Your task to perform on an android device: change timer sound Image 0: 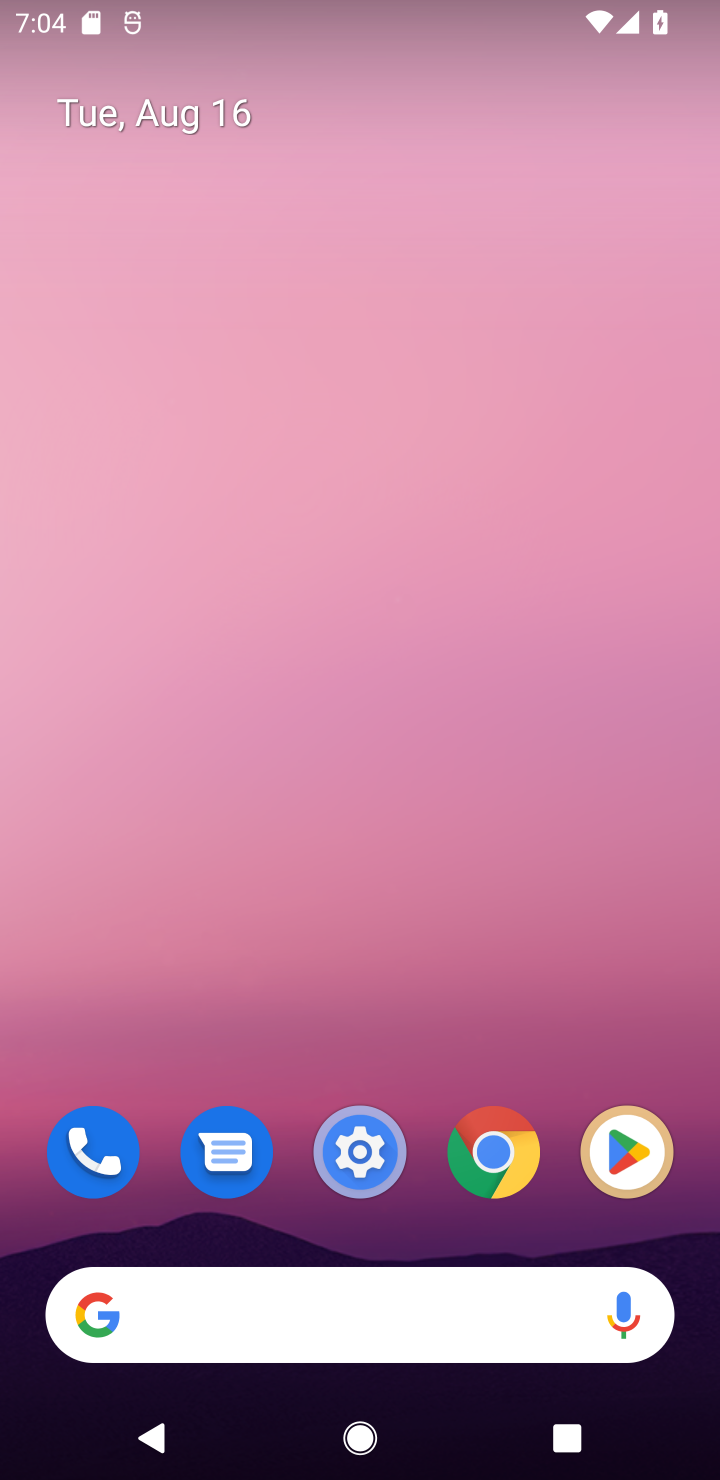
Step 0: drag from (315, 637) to (698, 1383)
Your task to perform on an android device: change timer sound Image 1: 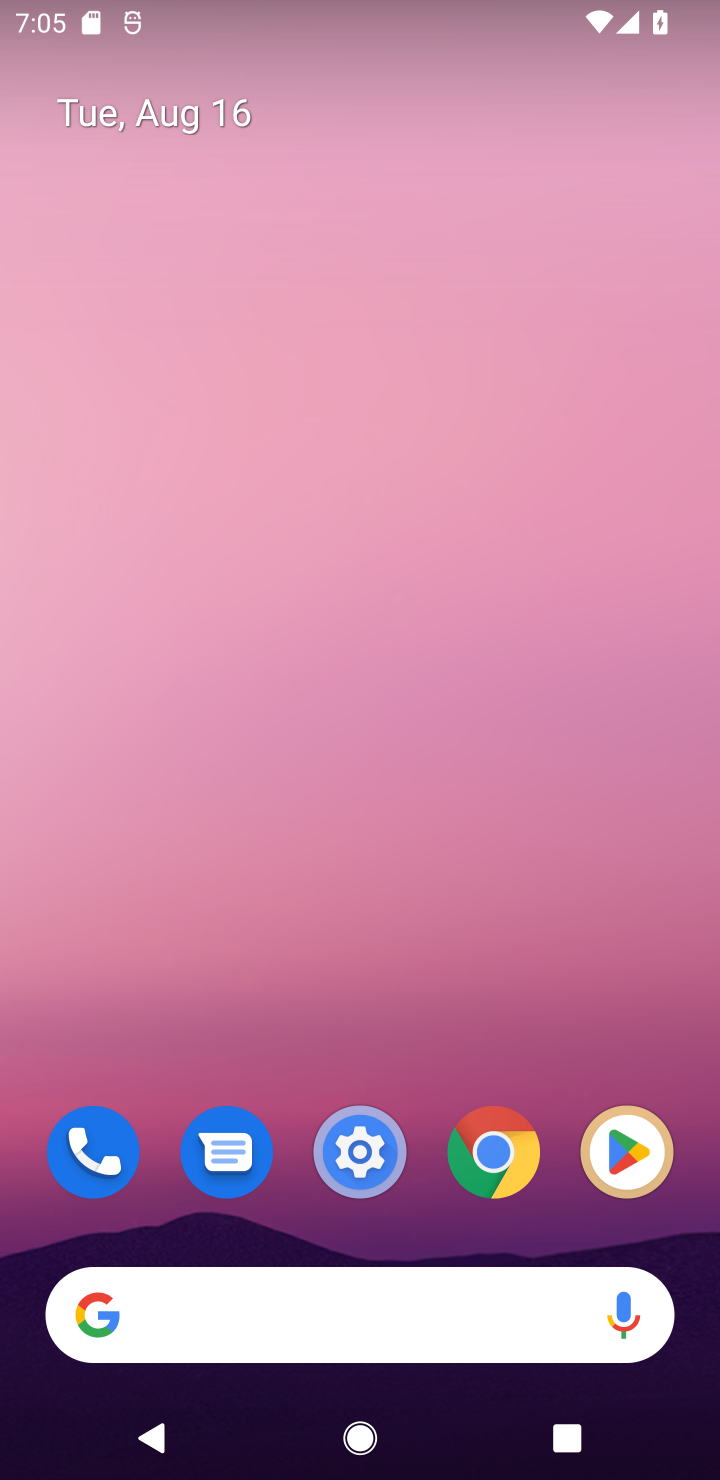
Step 1: drag from (303, 1093) to (377, 106)
Your task to perform on an android device: change timer sound Image 2: 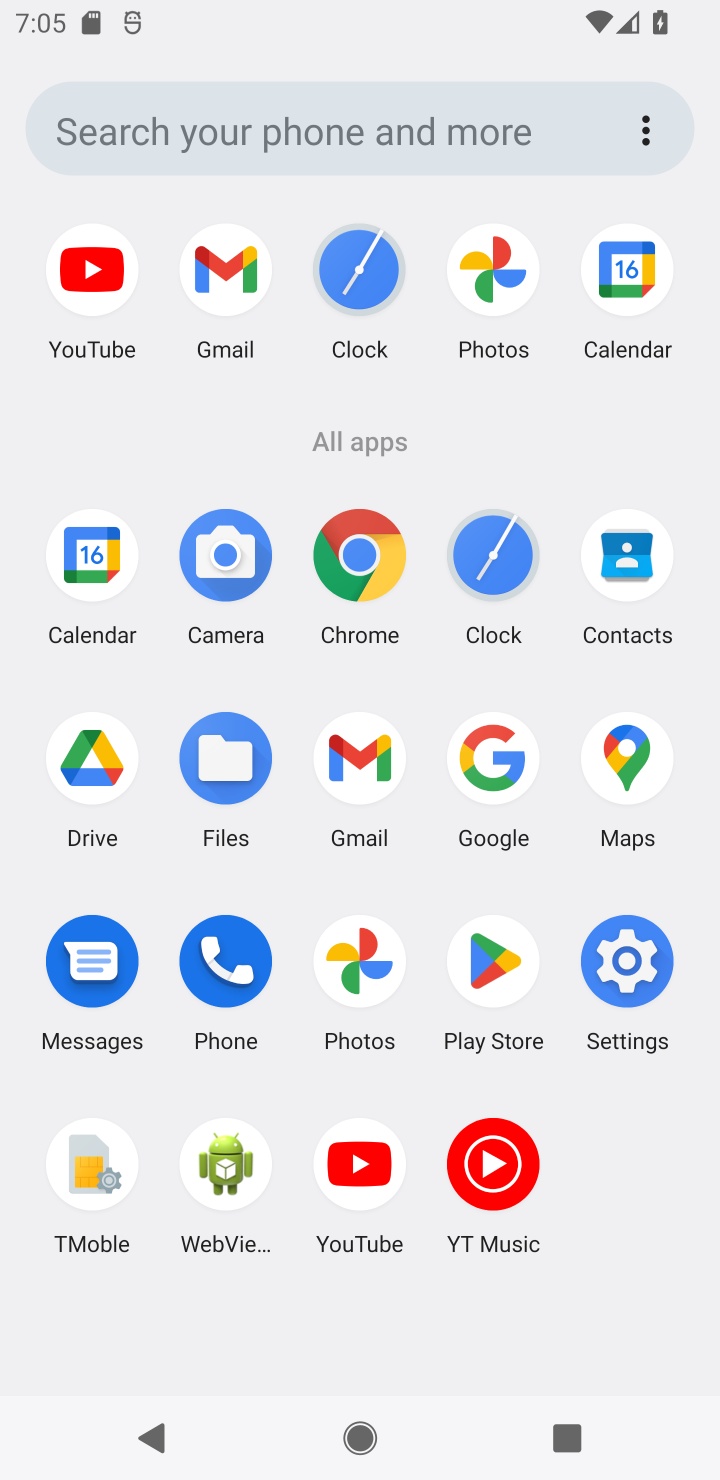
Step 2: click (503, 571)
Your task to perform on an android device: change timer sound Image 3: 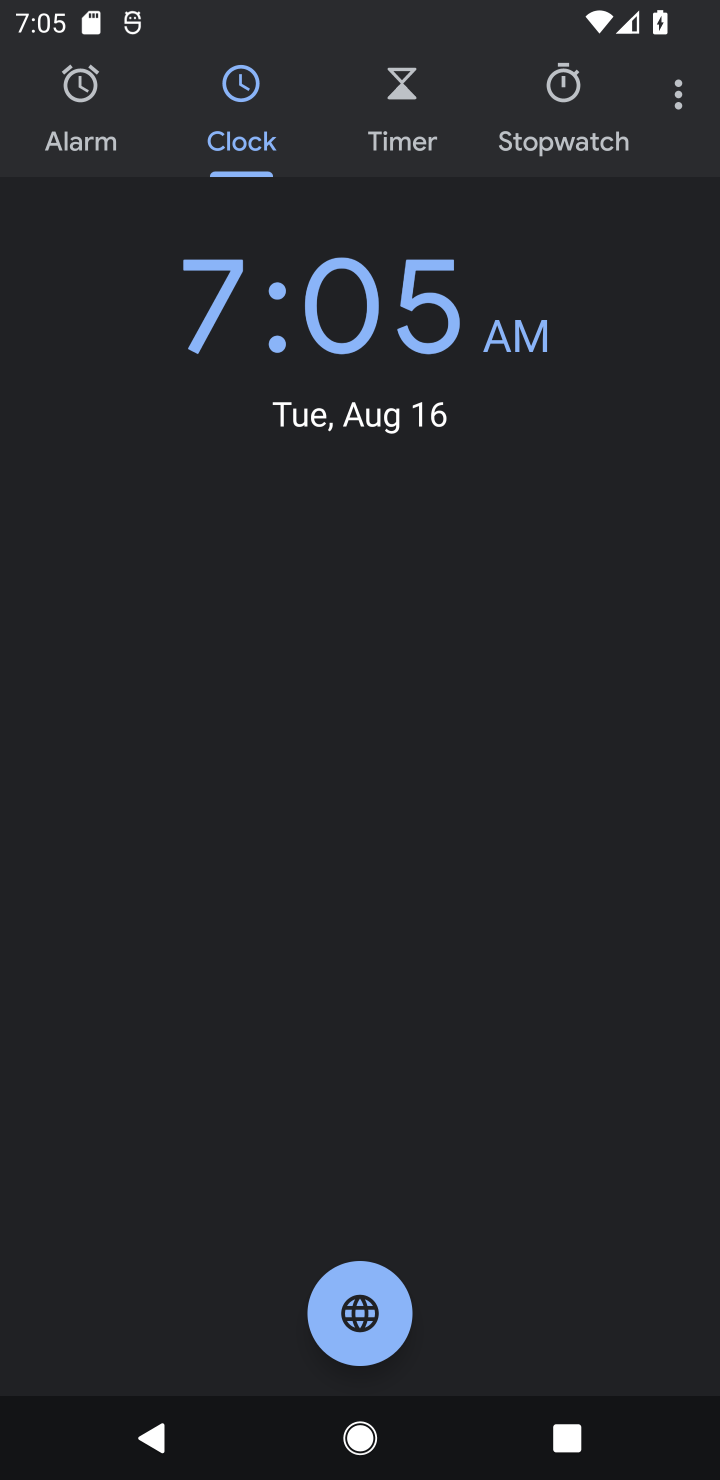
Step 3: click (691, 102)
Your task to perform on an android device: change timer sound Image 4: 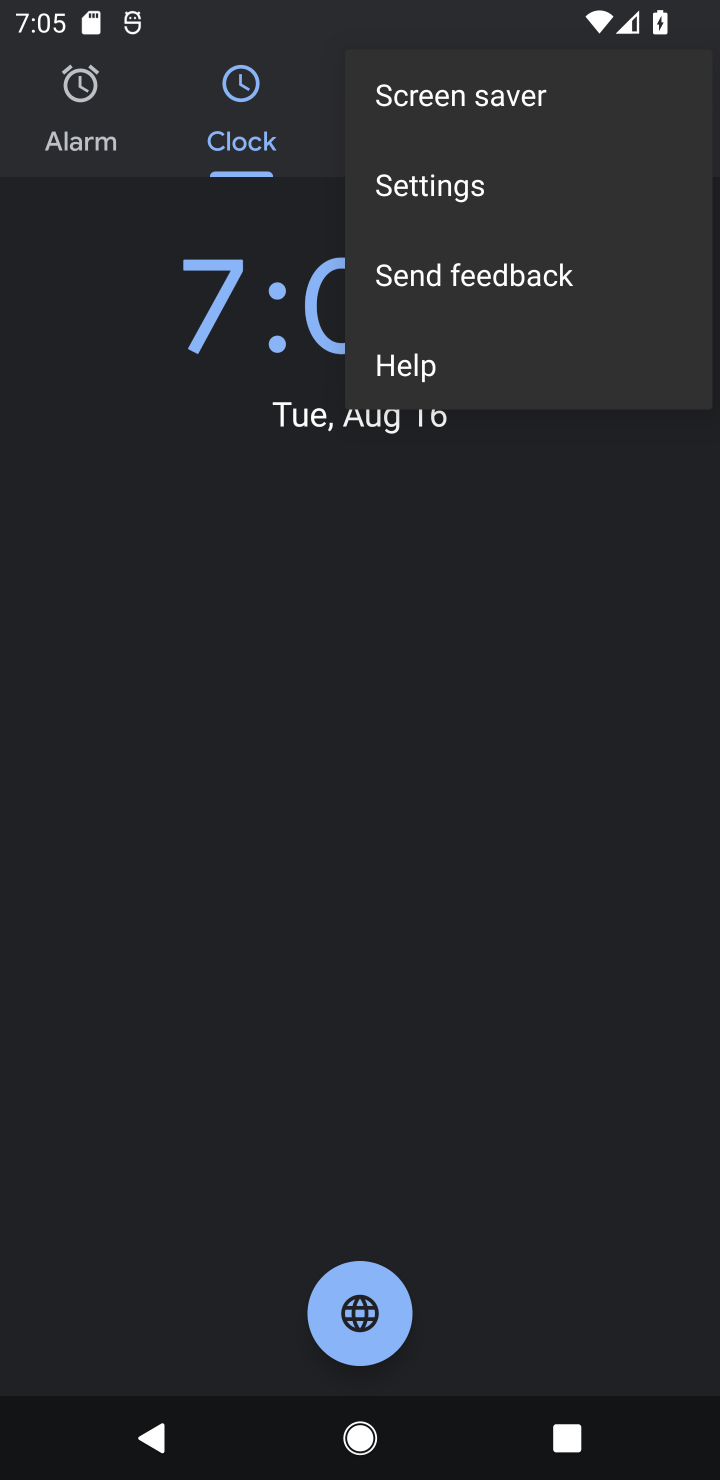
Step 4: click (444, 188)
Your task to perform on an android device: change timer sound Image 5: 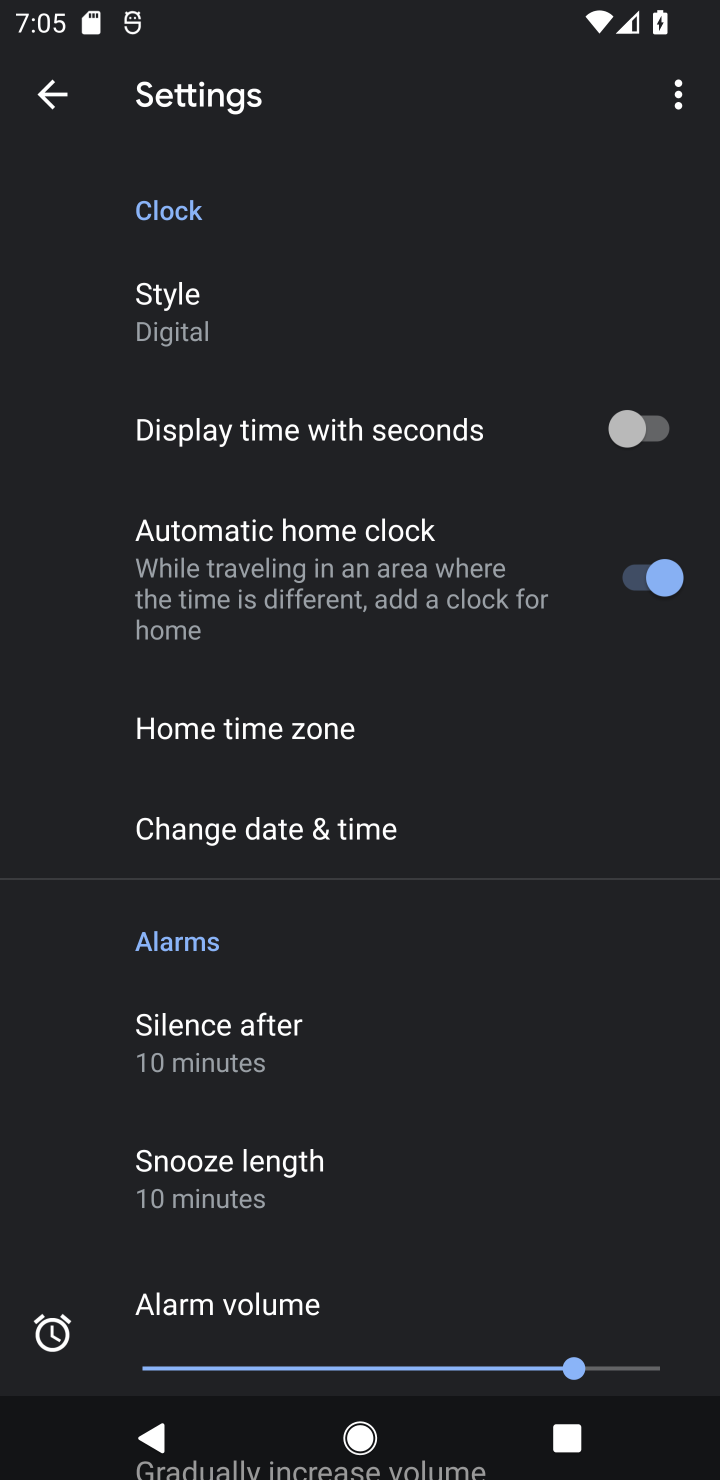
Step 5: drag from (272, 1201) to (332, 463)
Your task to perform on an android device: change timer sound Image 6: 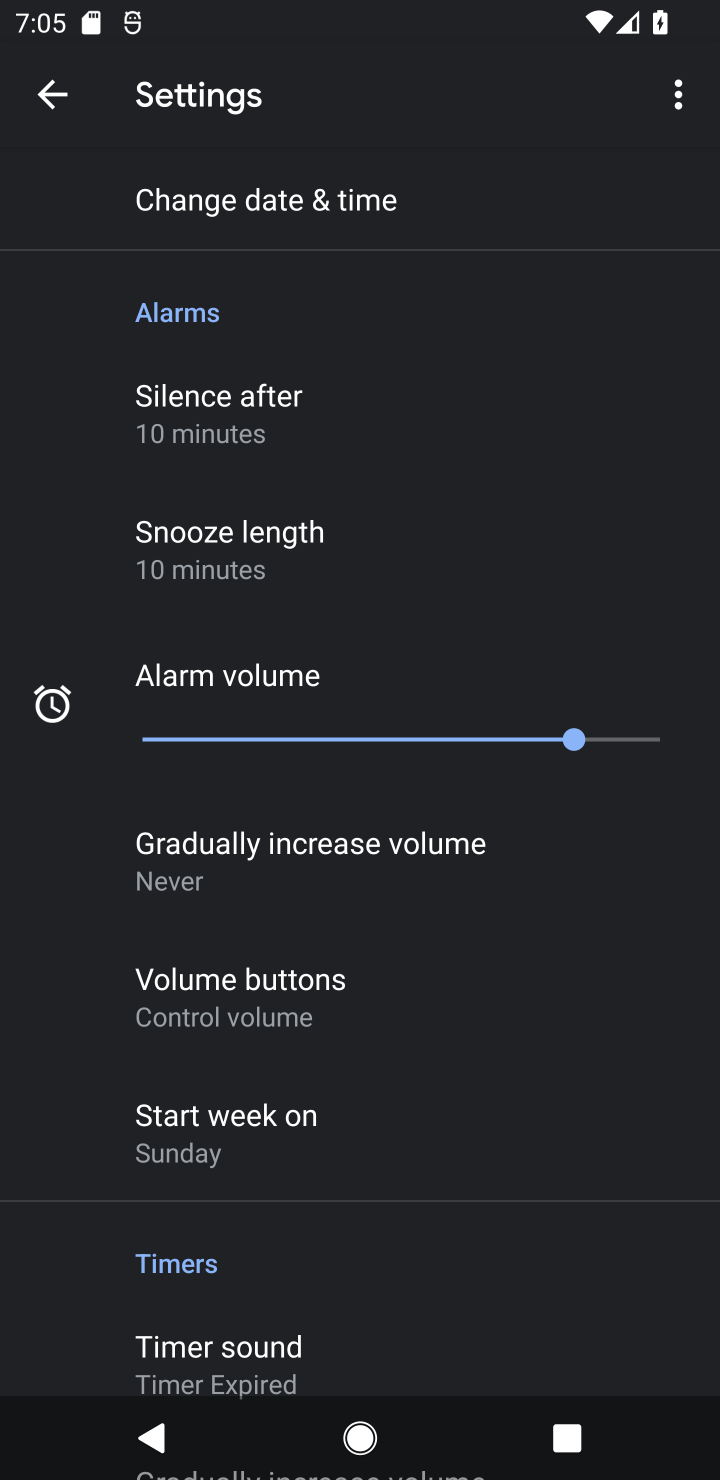
Step 6: drag from (264, 1214) to (305, 880)
Your task to perform on an android device: change timer sound Image 7: 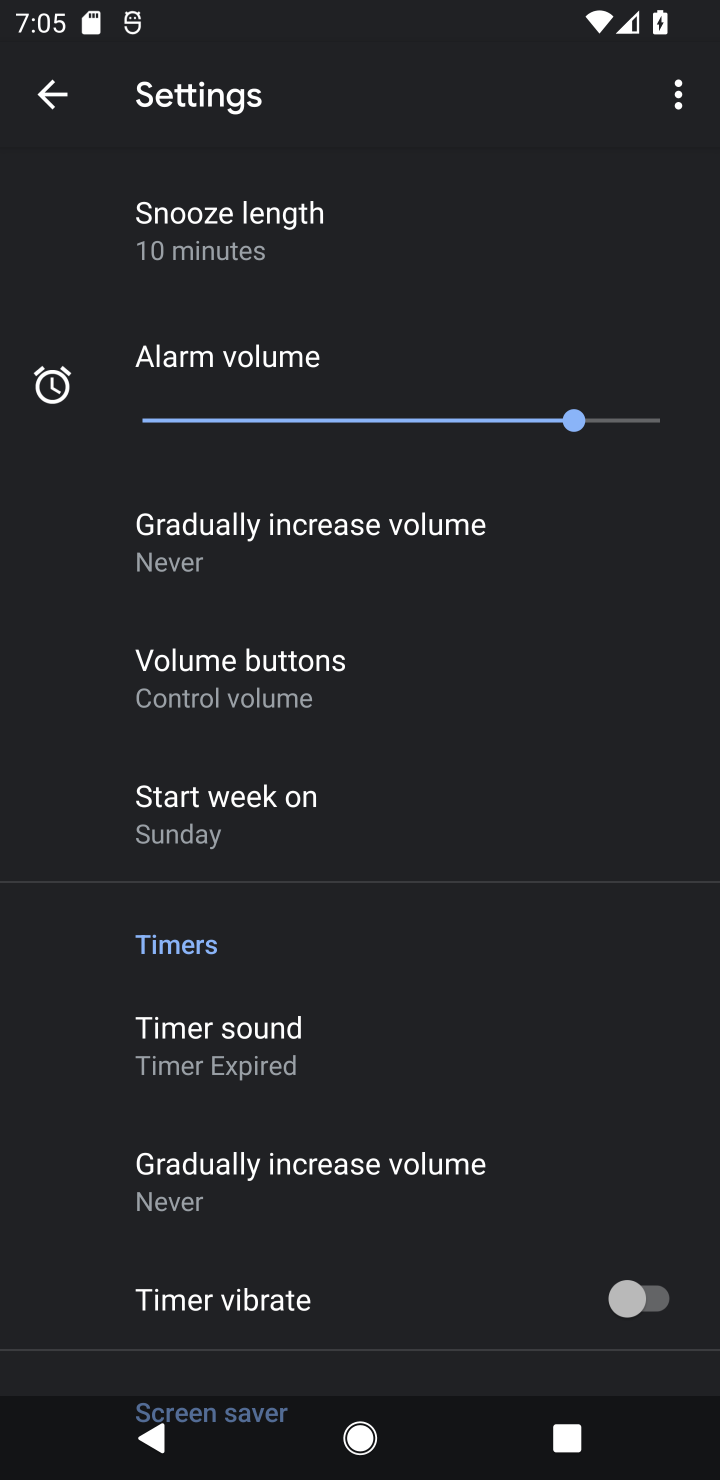
Step 7: click (264, 1075)
Your task to perform on an android device: change timer sound Image 8: 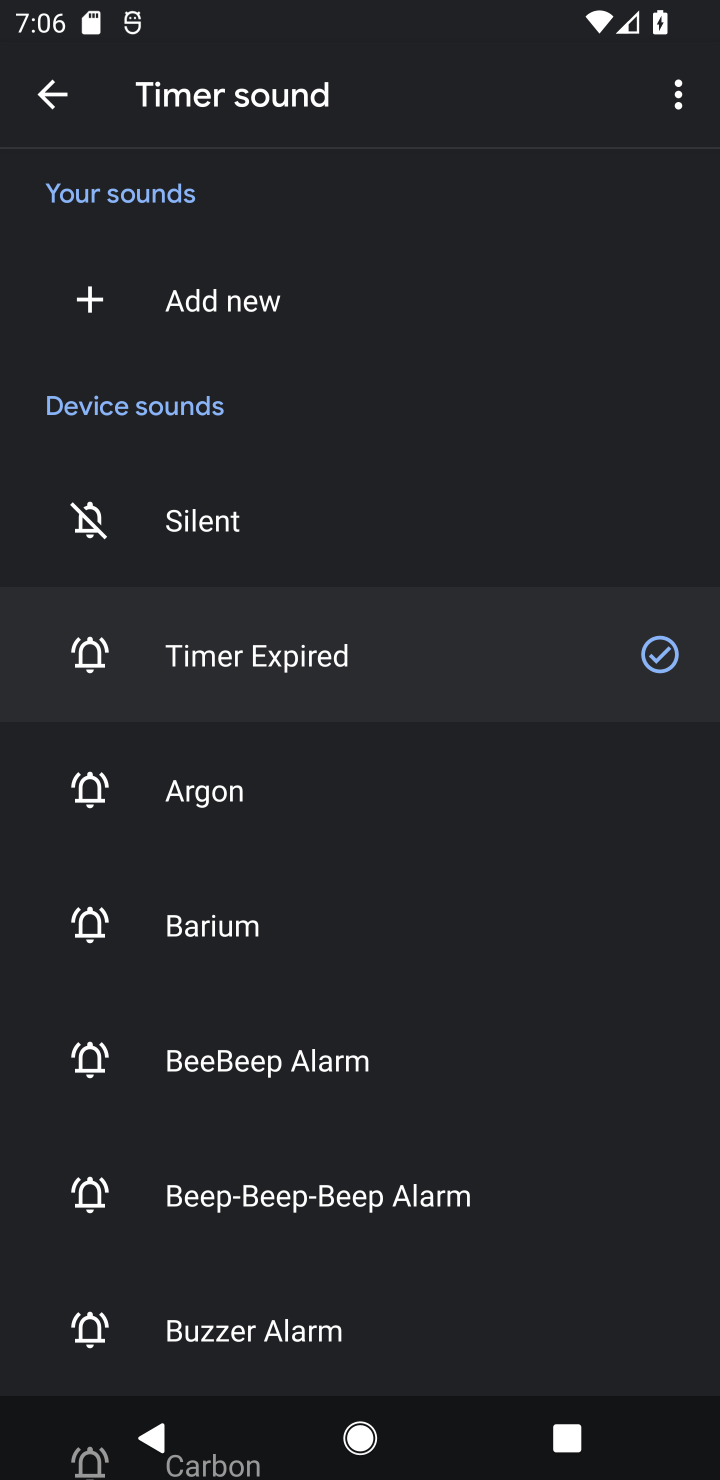
Step 8: click (219, 867)
Your task to perform on an android device: change timer sound Image 9: 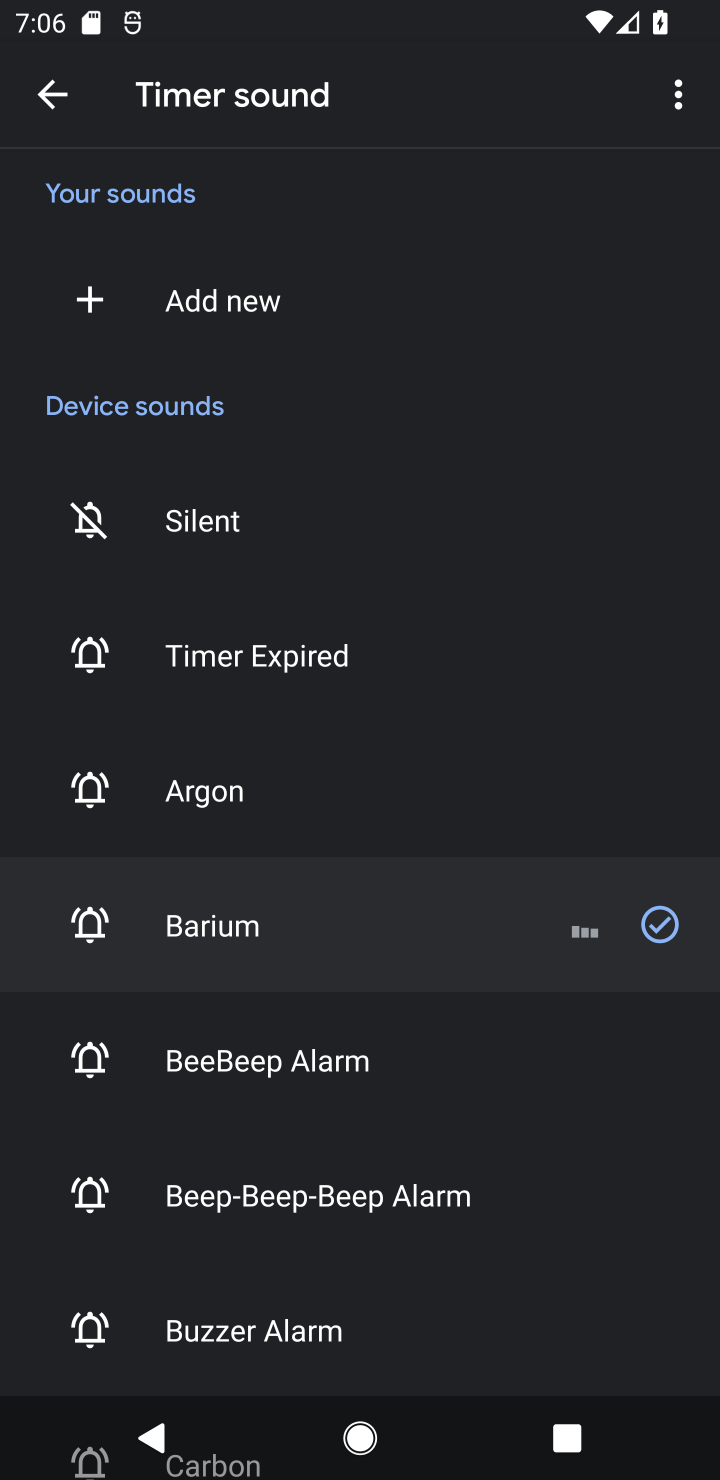
Step 9: task complete